Your task to perform on an android device: Show me recent news Image 0: 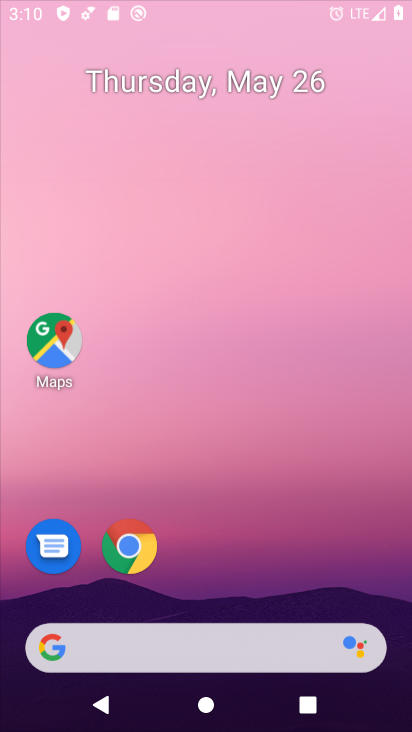
Step 0: click (139, 541)
Your task to perform on an android device: Show me recent news Image 1: 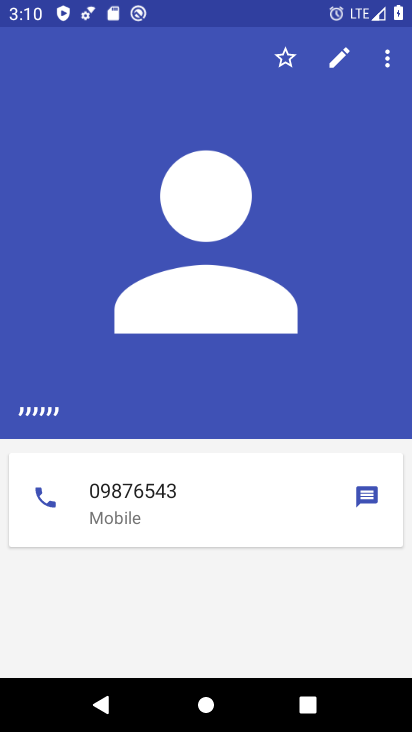
Step 1: press back button
Your task to perform on an android device: Show me recent news Image 2: 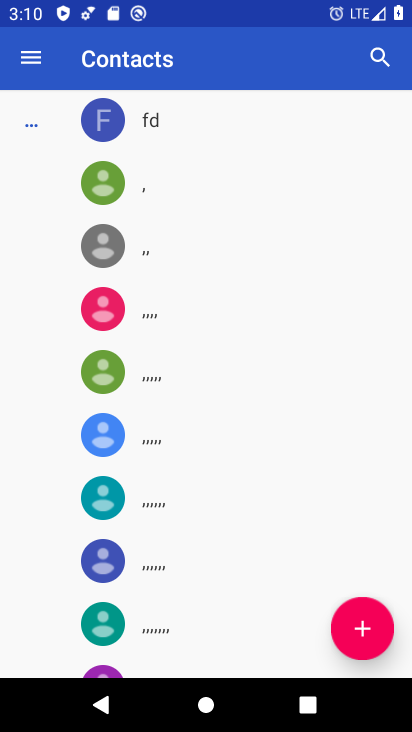
Step 2: press back button
Your task to perform on an android device: Show me recent news Image 3: 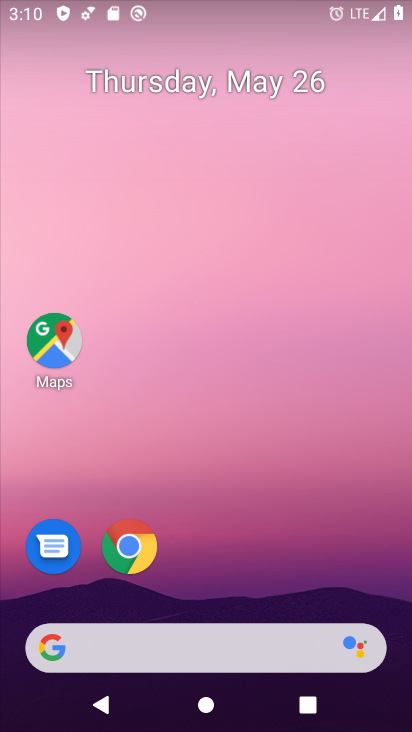
Step 3: click (199, 656)
Your task to perform on an android device: Show me recent news Image 4: 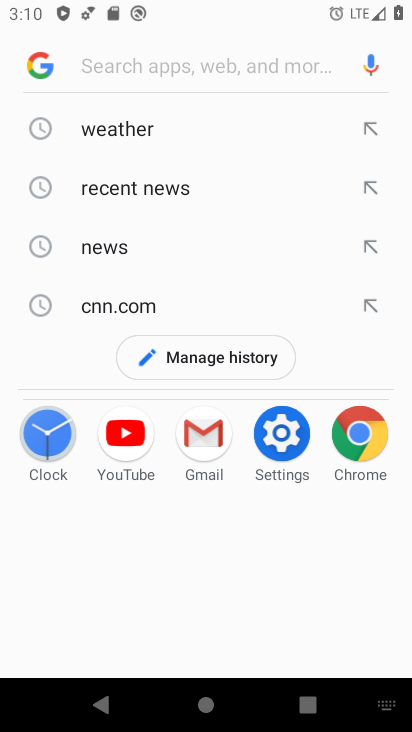
Step 4: click (143, 191)
Your task to perform on an android device: Show me recent news Image 5: 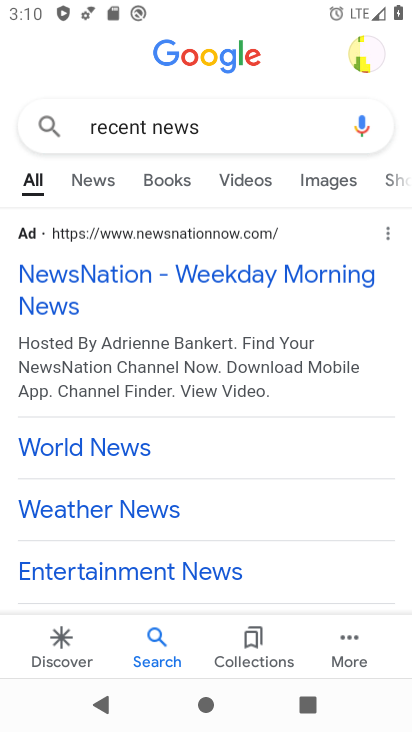
Step 5: task complete